Your task to perform on an android device: When is my next appointment? Image 0: 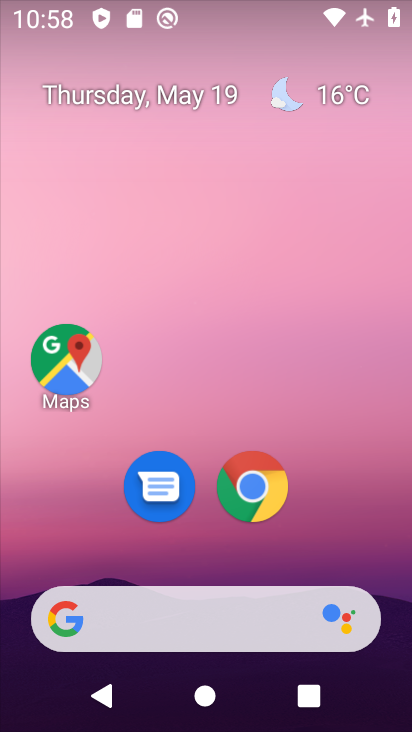
Step 0: drag from (354, 528) to (324, 239)
Your task to perform on an android device: When is my next appointment? Image 1: 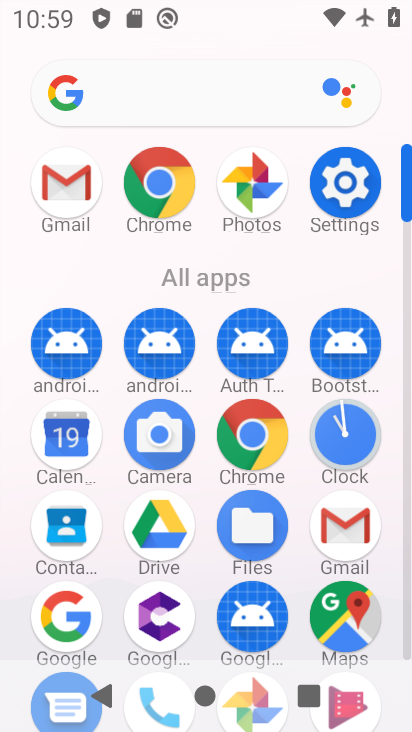
Step 1: click (83, 416)
Your task to perform on an android device: When is my next appointment? Image 2: 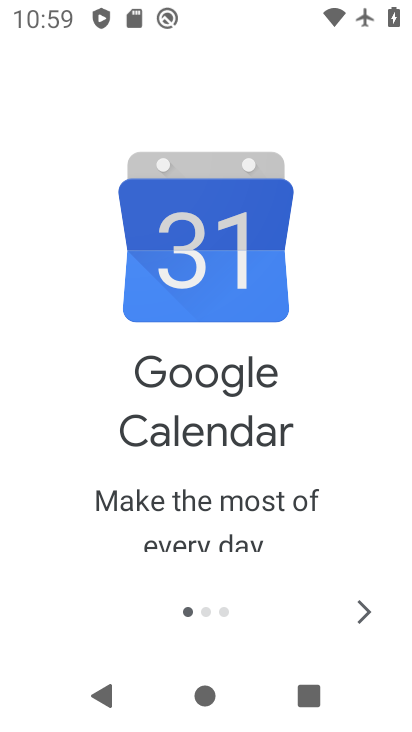
Step 2: click (385, 615)
Your task to perform on an android device: When is my next appointment? Image 3: 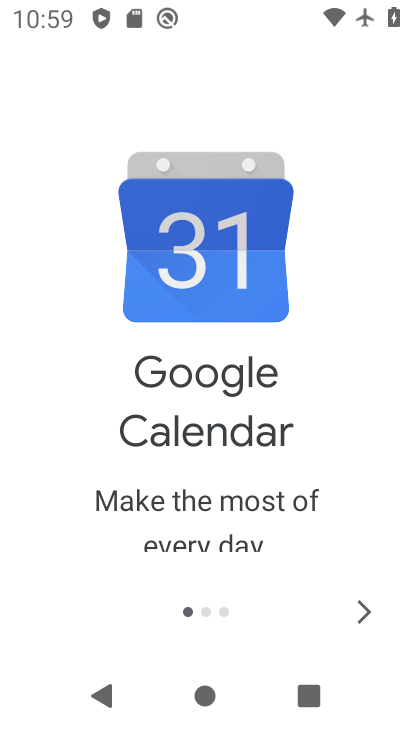
Step 3: click (385, 615)
Your task to perform on an android device: When is my next appointment? Image 4: 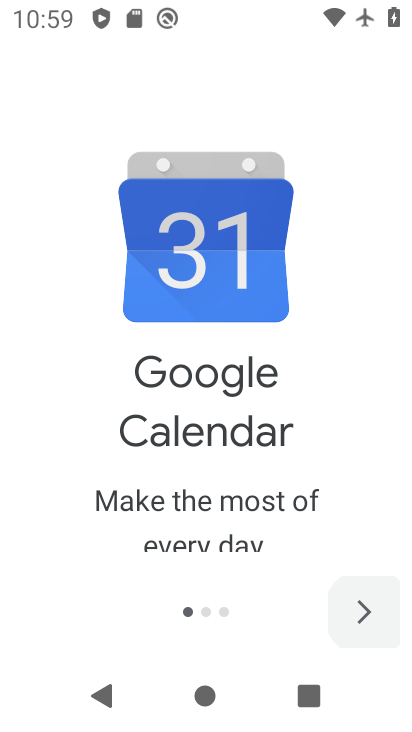
Step 4: click (385, 615)
Your task to perform on an android device: When is my next appointment? Image 5: 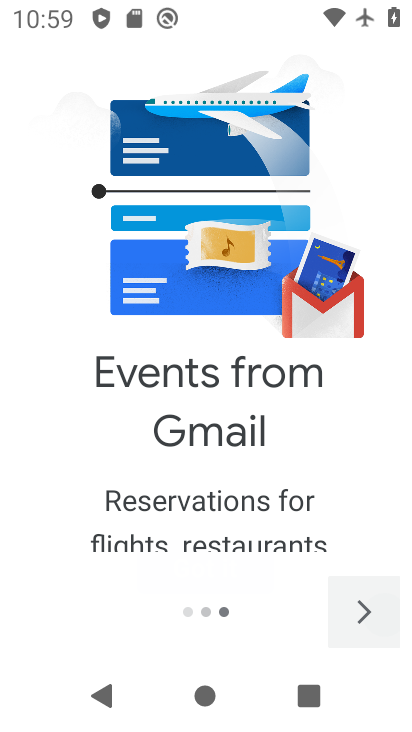
Step 5: click (385, 615)
Your task to perform on an android device: When is my next appointment? Image 6: 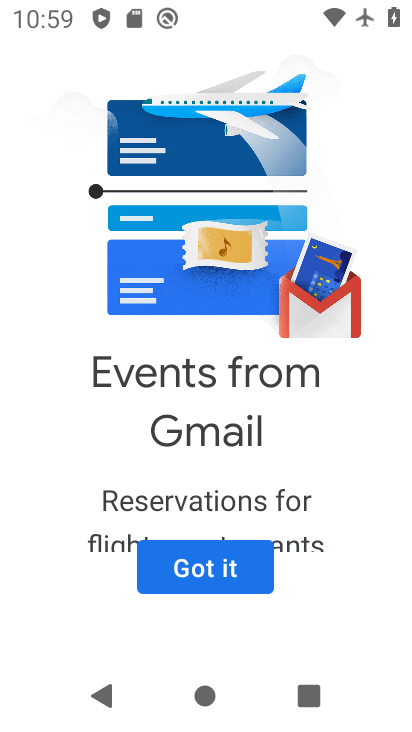
Step 6: click (260, 567)
Your task to perform on an android device: When is my next appointment? Image 7: 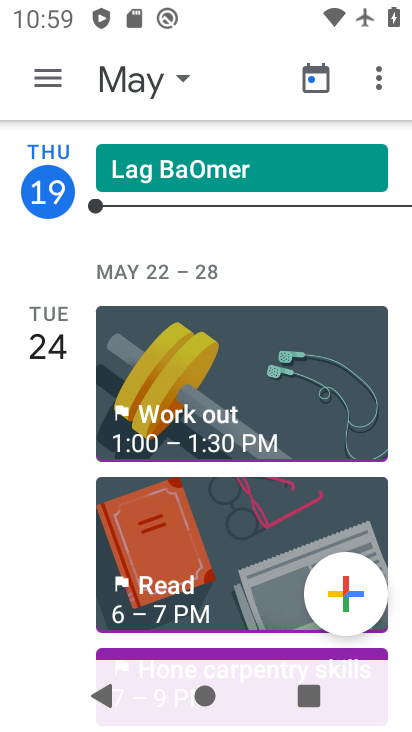
Step 7: task complete